Your task to perform on an android device: Open the stopwatch Image 0: 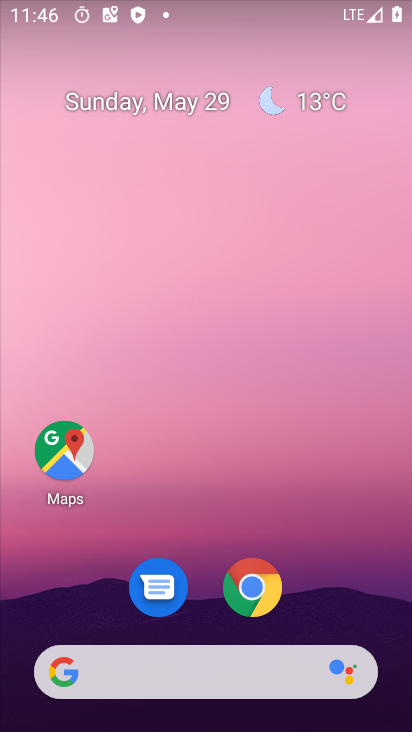
Step 0: drag from (351, 491) to (307, 30)
Your task to perform on an android device: Open the stopwatch Image 1: 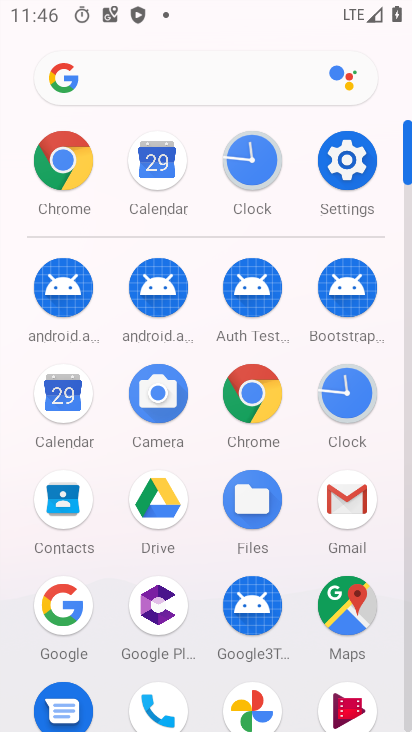
Step 1: click (252, 140)
Your task to perform on an android device: Open the stopwatch Image 2: 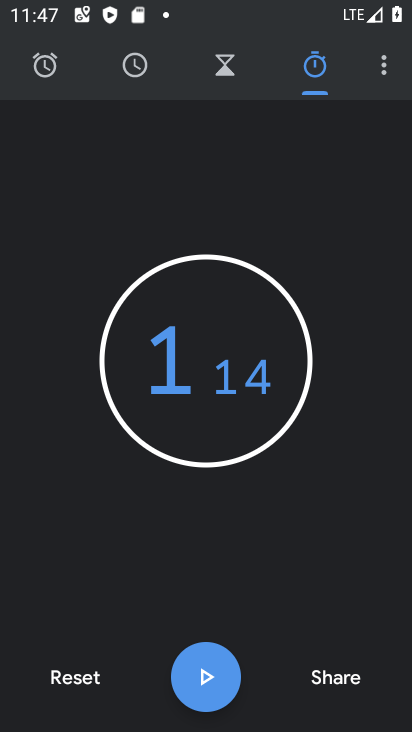
Step 2: task complete